Your task to perform on an android device: Open ESPN.com Image 0: 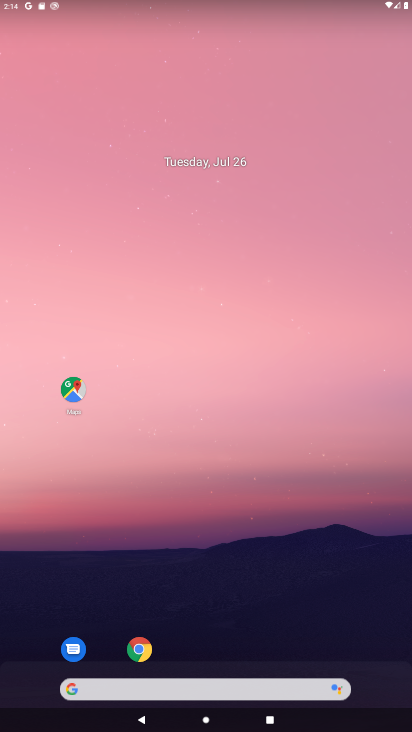
Step 0: click (138, 664)
Your task to perform on an android device: Open ESPN.com Image 1: 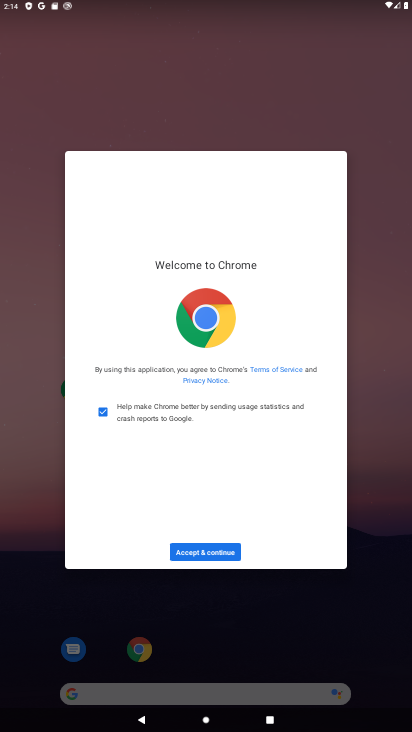
Step 1: click (209, 545)
Your task to perform on an android device: Open ESPN.com Image 2: 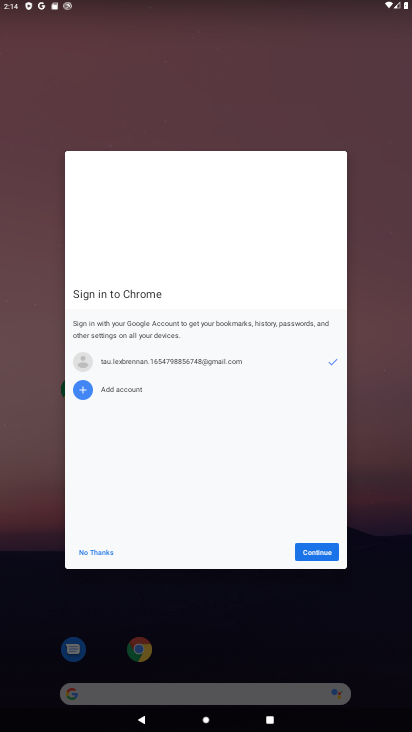
Step 2: click (306, 557)
Your task to perform on an android device: Open ESPN.com Image 3: 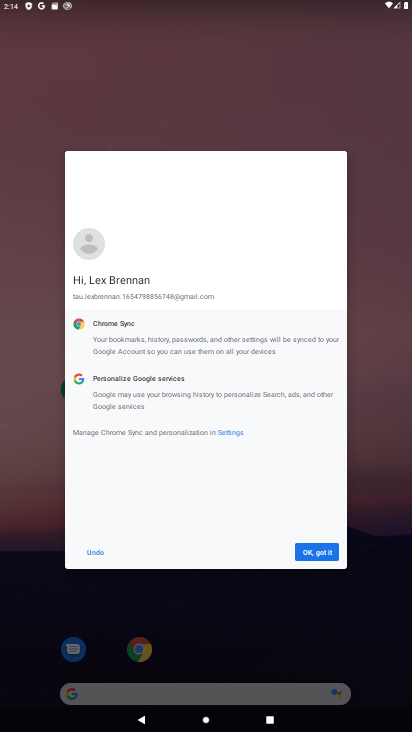
Step 3: click (315, 553)
Your task to perform on an android device: Open ESPN.com Image 4: 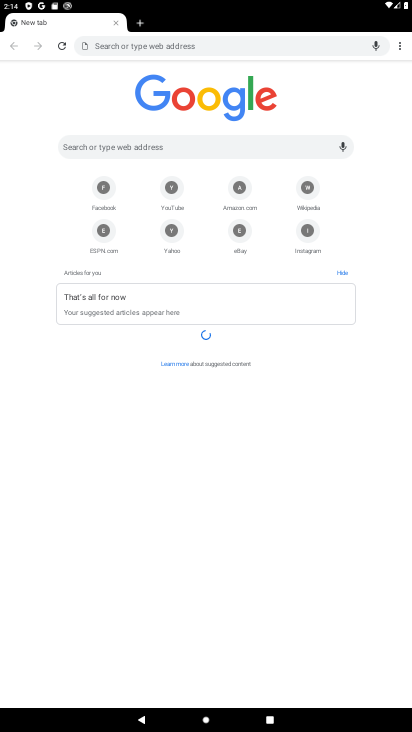
Step 4: click (199, 52)
Your task to perform on an android device: Open ESPN.com Image 5: 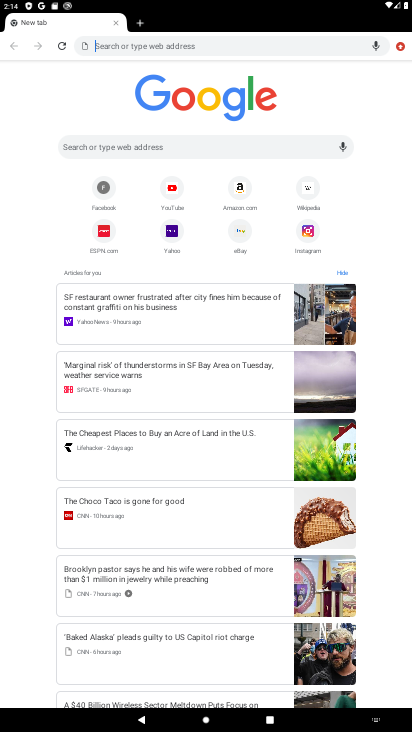
Step 5: type "espn.com"
Your task to perform on an android device: Open ESPN.com Image 6: 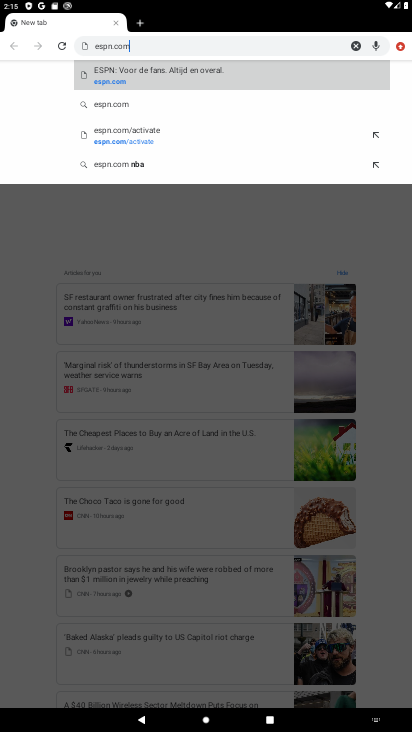
Step 6: click (161, 76)
Your task to perform on an android device: Open ESPN.com Image 7: 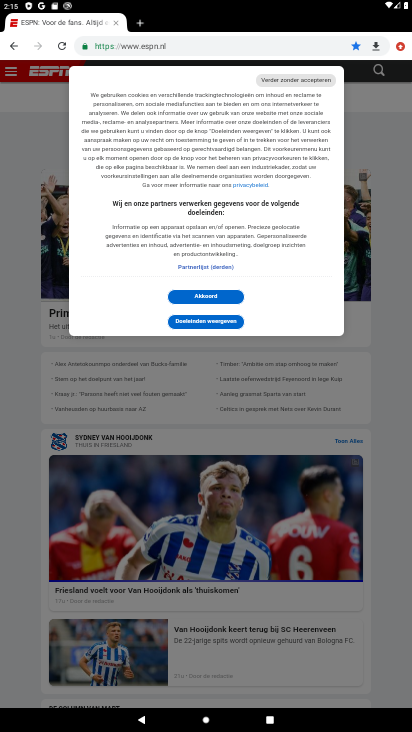
Step 7: task complete